Your task to perform on an android device: Find coffee shops on Maps Image 0: 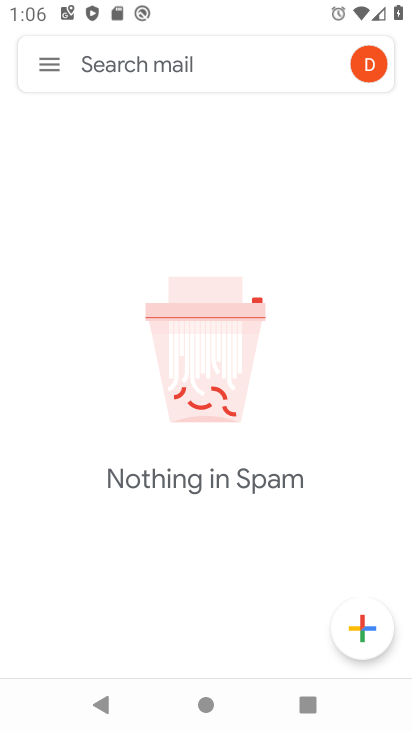
Step 0: press home button
Your task to perform on an android device: Find coffee shops on Maps Image 1: 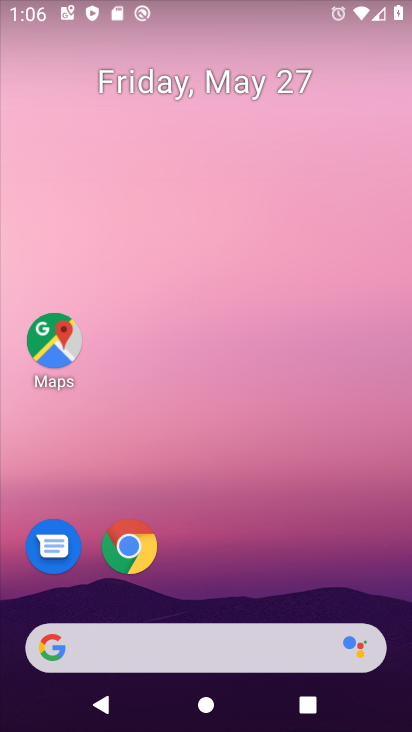
Step 1: drag from (269, 672) to (266, 0)
Your task to perform on an android device: Find coffee shops on Maps Image 2: 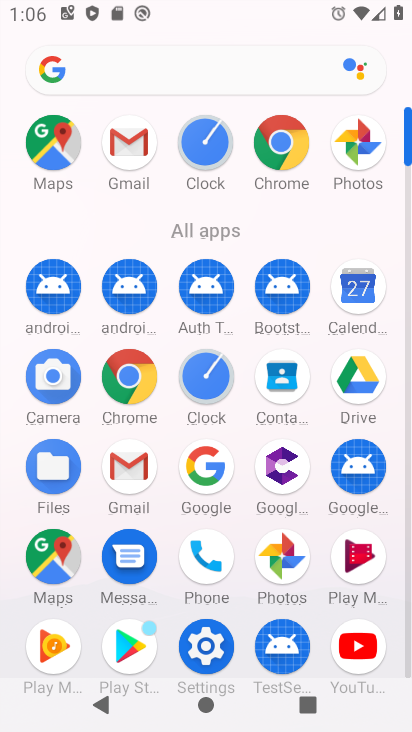
Step 2: click (63, 131)
Your task to perform on an android device: Find coffee shops on Maps Image 3: 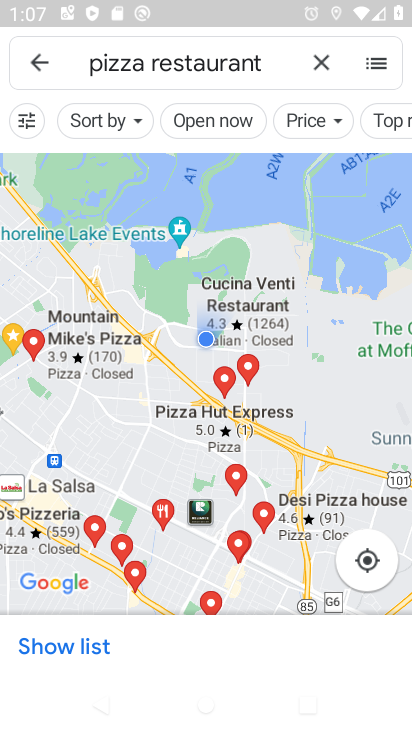
Step 3: click (318, 73)
Your task to perform on an android device: Find coffee shops on Maps Image 4: 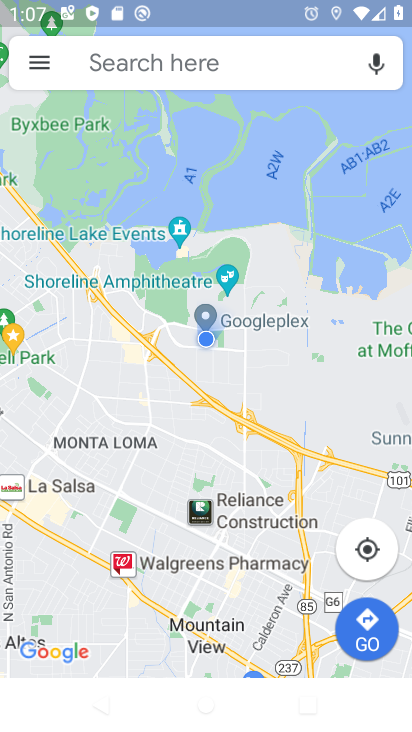
Step 4: click (208, 69)
Your task to perform on an android device: Find coffee shops on Maps Image 5: 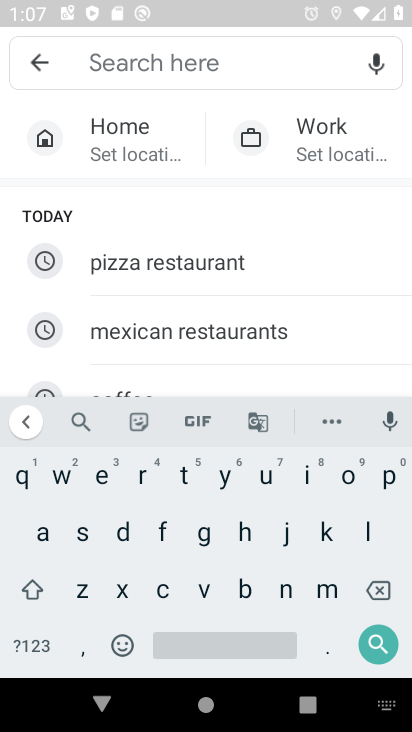
Step 5: click (163, 591)
Your task to perform on an android device: Find coffee shops on Maps Image 6: 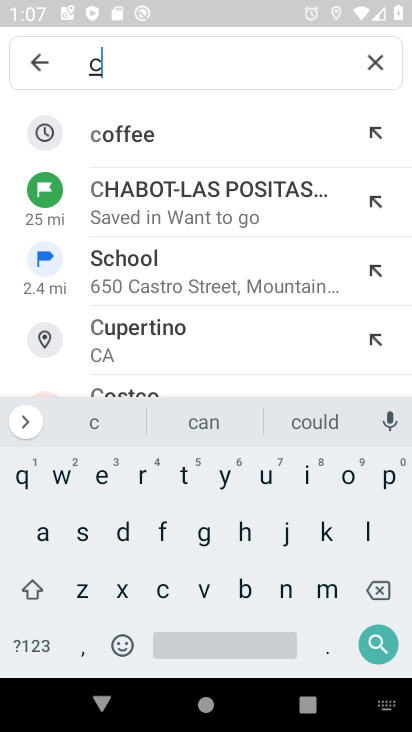
Step 6: click (125, 139)
Your task to perform on an android device: Find coffee shops on Maps Image 7: 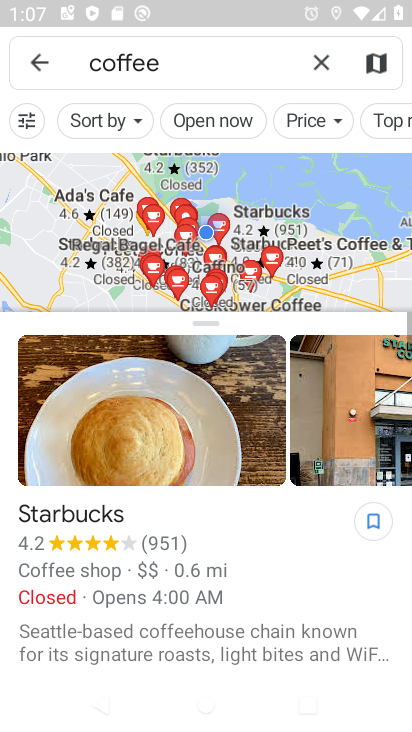
Step 7: click (267, 300)
Your task to perform on an android device: Find coffee shops on Maps Image 8: 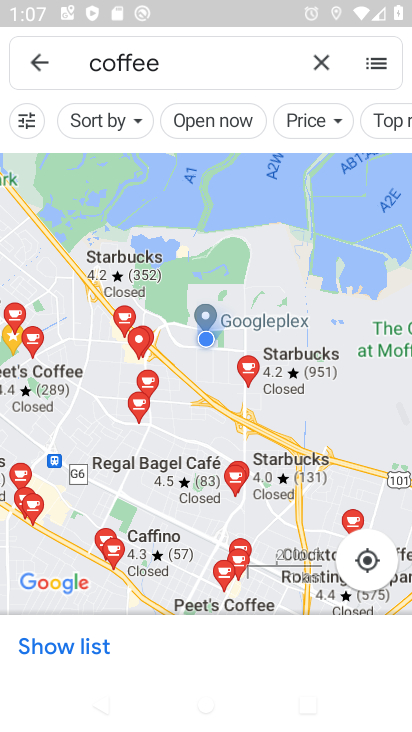
Step 8: task complete